Your task to perform on an android device: change notifications settings Image 0: 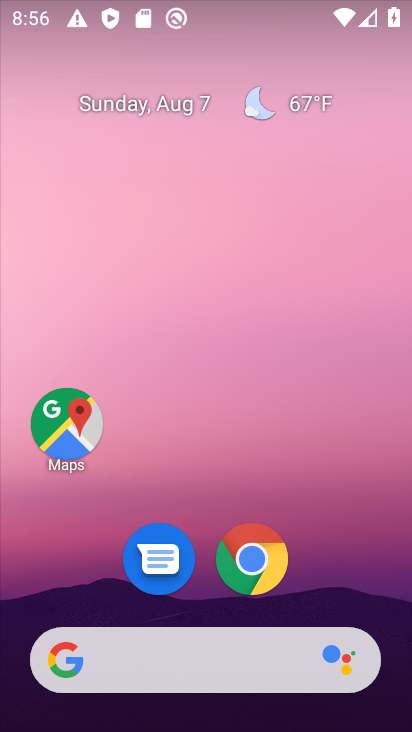
Step 0: drag from (265, 637) to (290, 152)
Your task to perform on an android device: change notifications settings Image 1: 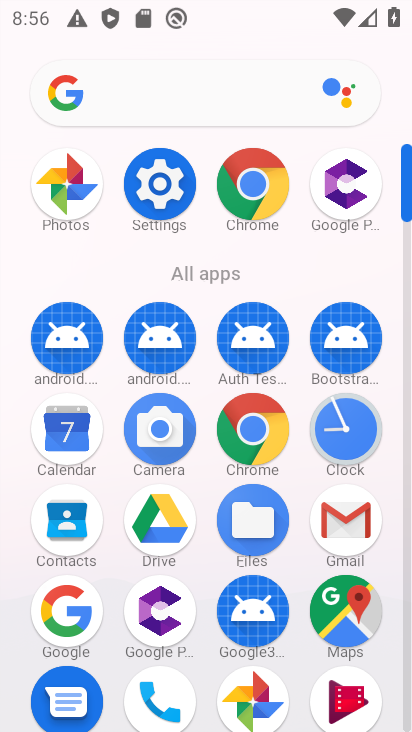
Step 1: click (154, 178)
Your task to perform on an android device: change notifications settings Image 2: 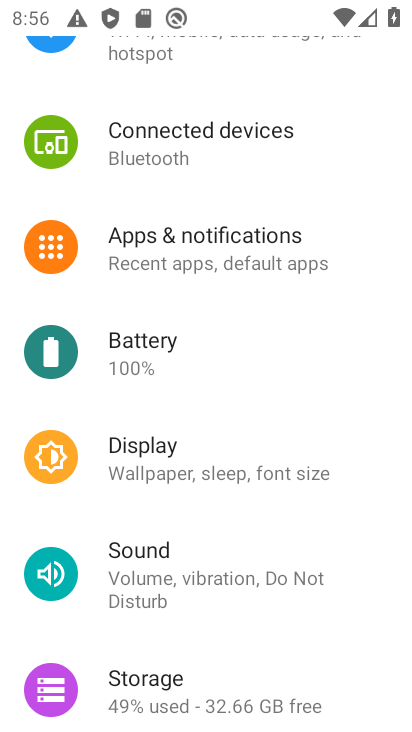
Step 2: click (195, 255)
Your task to perform on an android device: change notifications settings Image 3: 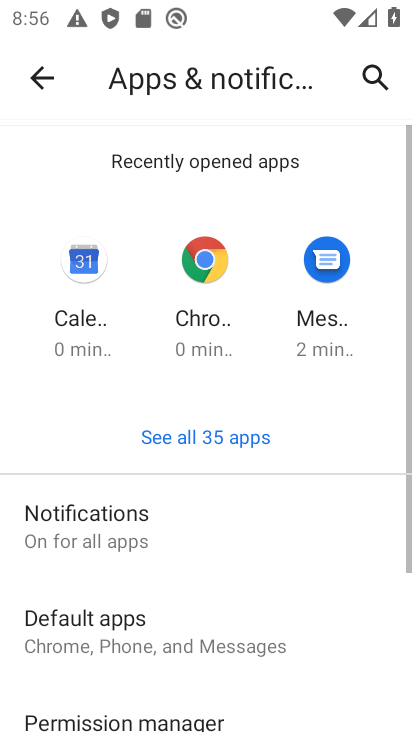
Step 3: click (162, 528)
Your task to perform on an android device: change notifications settings Image 4: 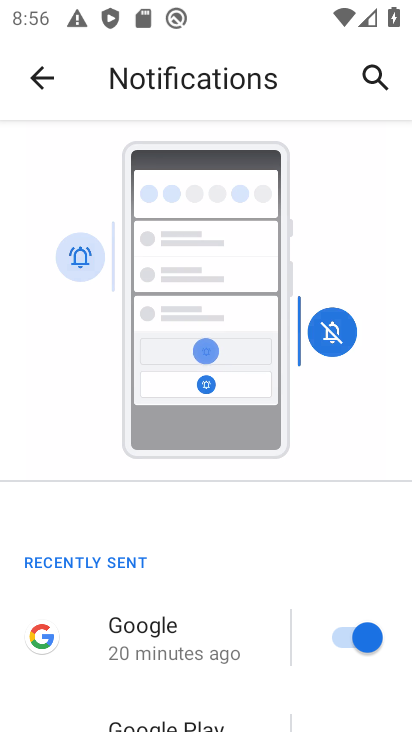
Step 4: click (339, 637)
Your task to perform on an android device: change notifications settings Image 5: 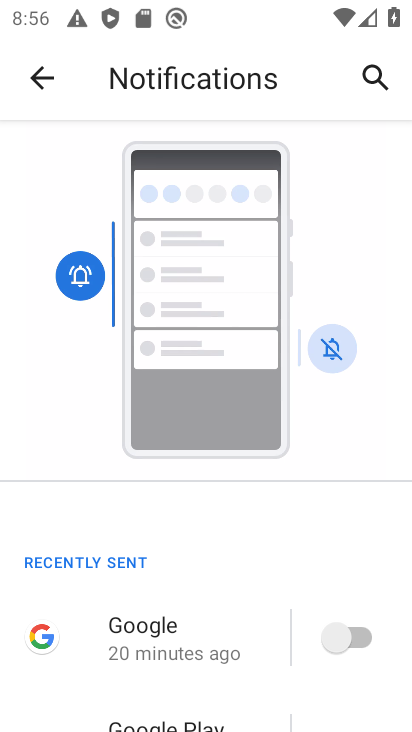
Step 5: task complete